Your task to perform on an android device: Open Google Maps and go to "Timeline" Image 0: 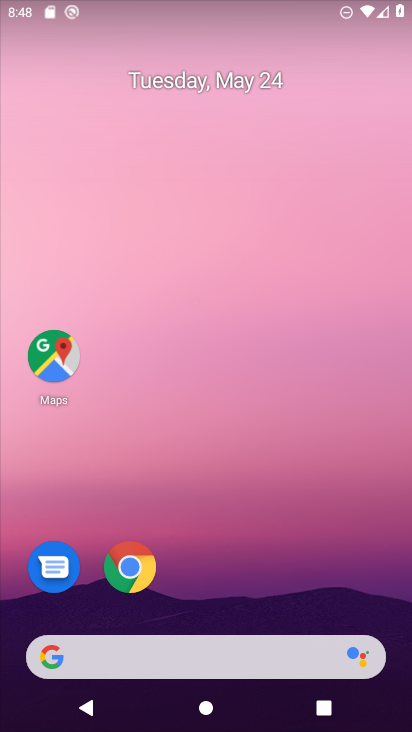
Step 0: drag from (140, 664) to (174, 541)
Your task to perform on an android device: Open Google Maps and go to "Timeline" Image 1: 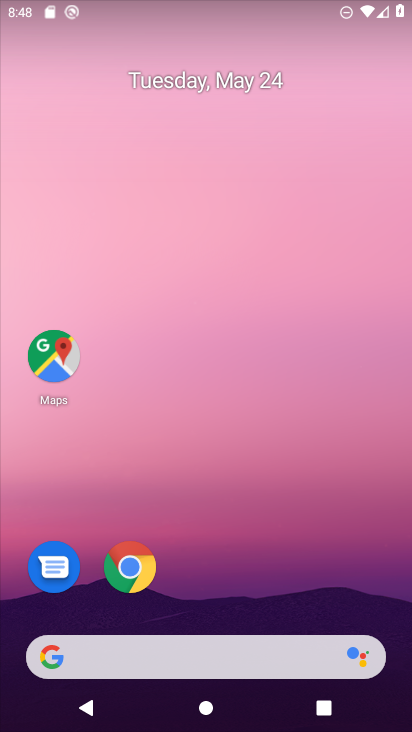
Step 1: click (45, 364)
Your task to perform on an android device: Open Google Maps and go to "Timeline" Image 2: 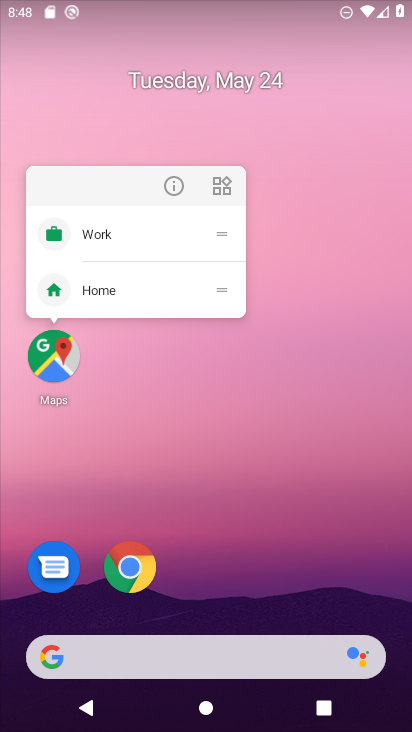
Step 2: click (56, 361)
Your task to perform on an android device: Open Google Maps and go to "Timeline" Image 3: 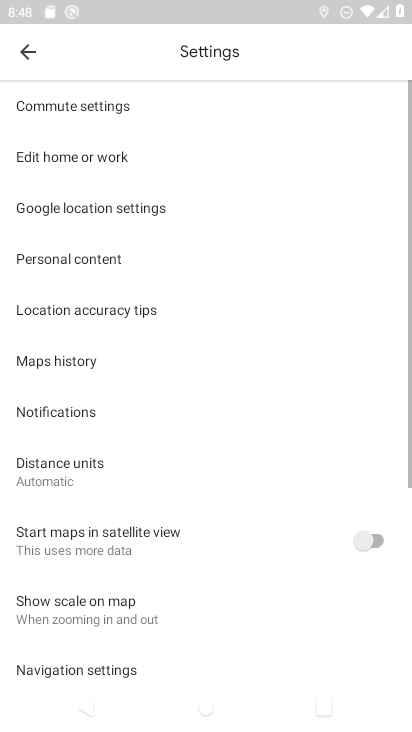
Step 3: click (31, 52)
Your task to perform on an android device: Open Google Maps and go to "Timeline" Image 4: 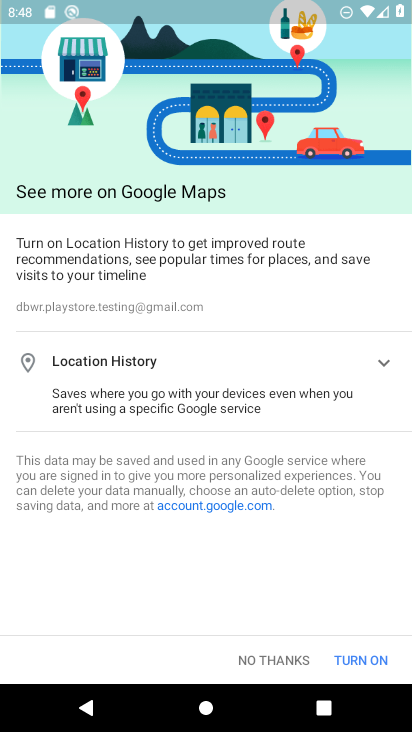
Step 4: click (289, 664)
Your task to perform on an android device: Open Google Maps and go to "Timeline" Image 5: 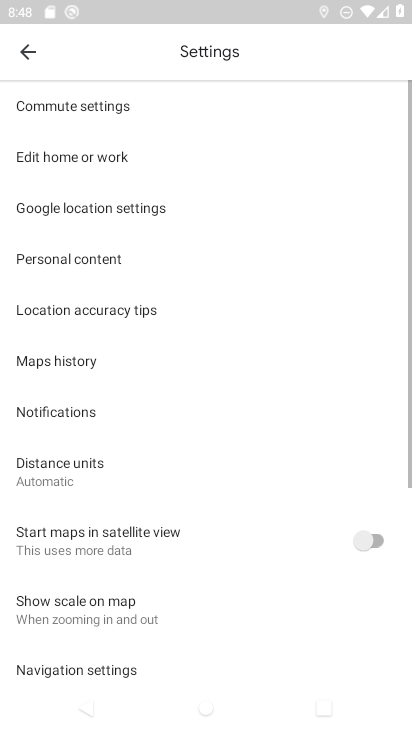
Step 5: click (26, 47)
Your task to perform on an android device: Open Google Maps and go to "Timeline" Image 6: 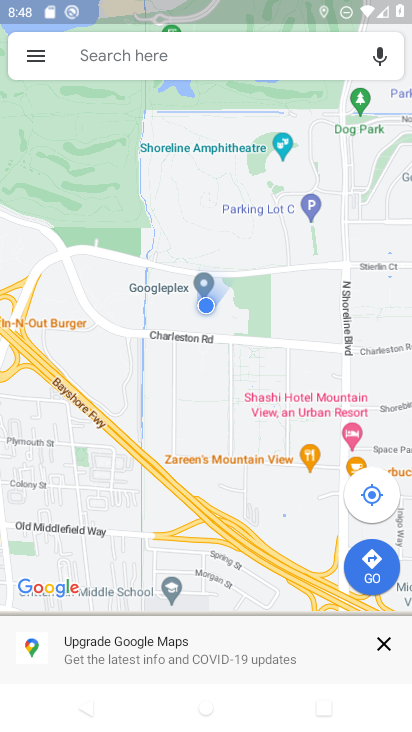
Step 6: click (34, 53)
Your task to perform on an android device: Open Google Maps and go to "Timeline" Image 7: 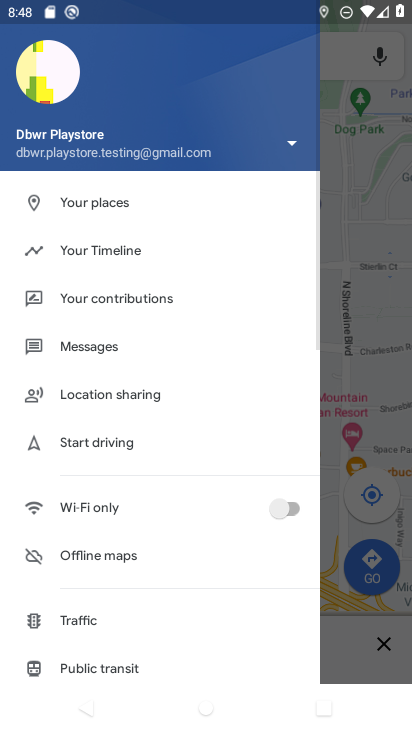
Step 7: click (99, 249)
Your task to perform on an android device: Open Google Maps and go to "Timeline" Image 8: 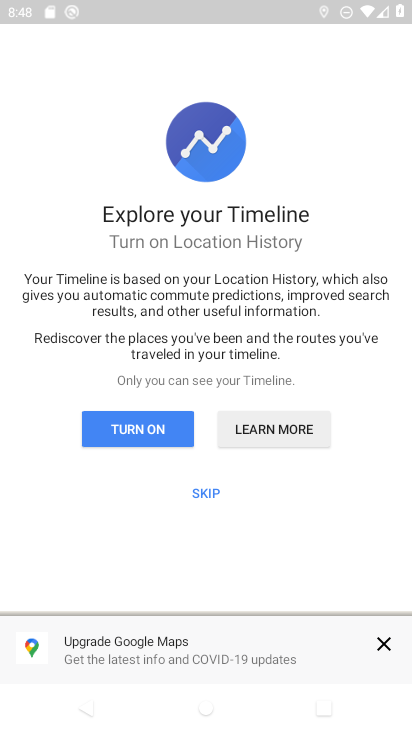
Step 8: click (206, 498)
Your task to perform on an android device: Open Google Maps and go to "Timeline" Image 9: 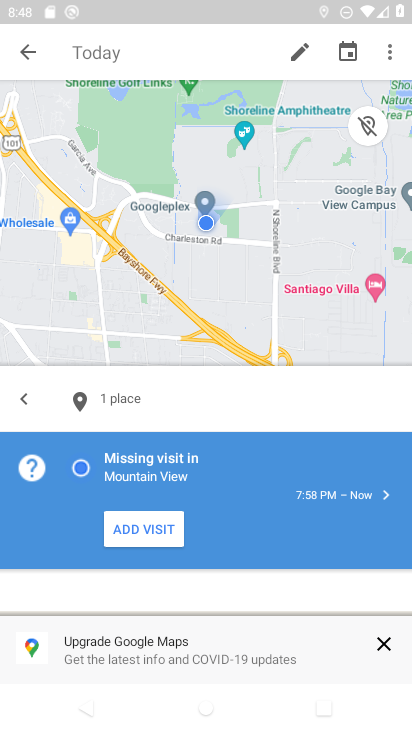
Step 9: task complete